Your task to perform on an android device: Go to Reddit.com Image 0: 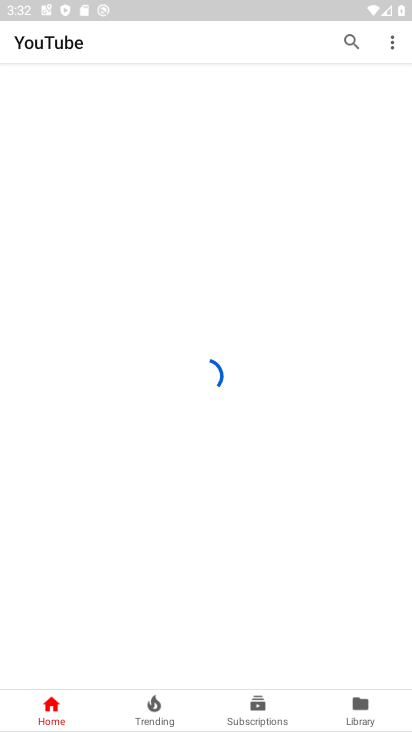
Step 0: drag from (261, 637) to (199, 21)
Your task to perform on an android device: Go to Reddit.com Image 1: 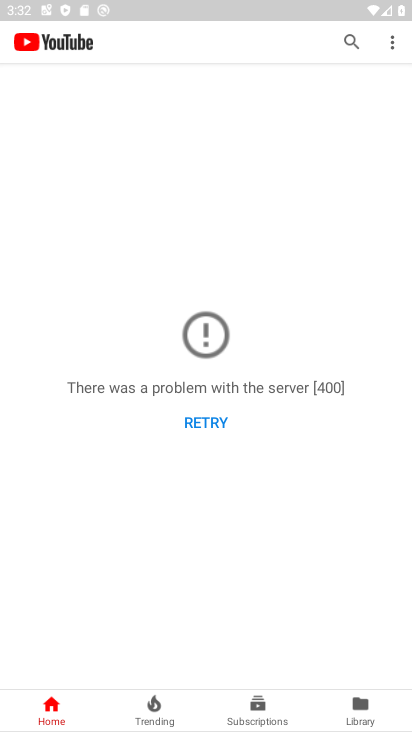
Step 1: press back button
Your task to perform on an android device: Go to Reddit.com Image 2: 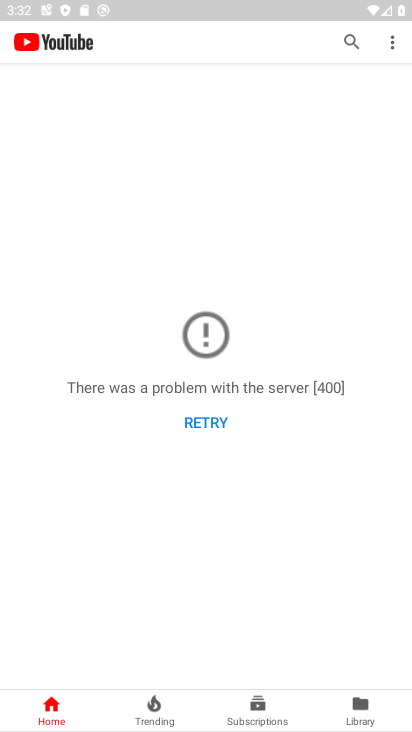
Step 2: press back button
Your task to perform on an android device: Go to Reddit.com Image 3: 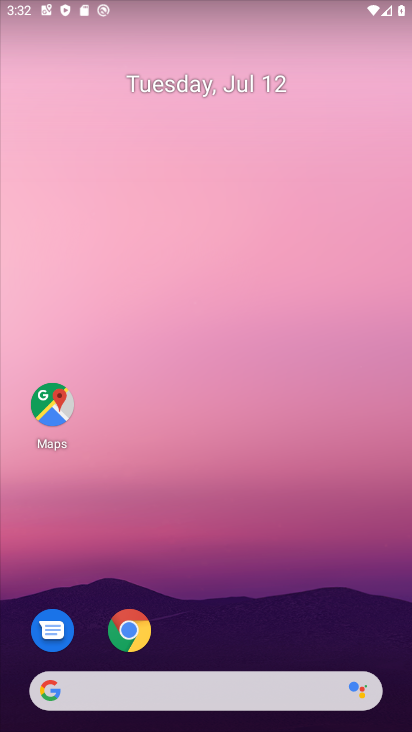
Step 3: drag from (270, 623) to (220, 183)
Your task to perform on an android device: Go to Reddit.com Image 4: 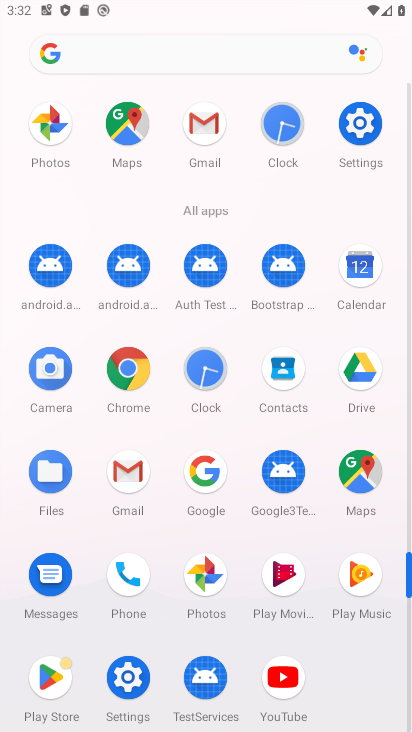
Step 4: click (128, 364)
Your task to perform on an android device: Go to Reddit.com Image 5: 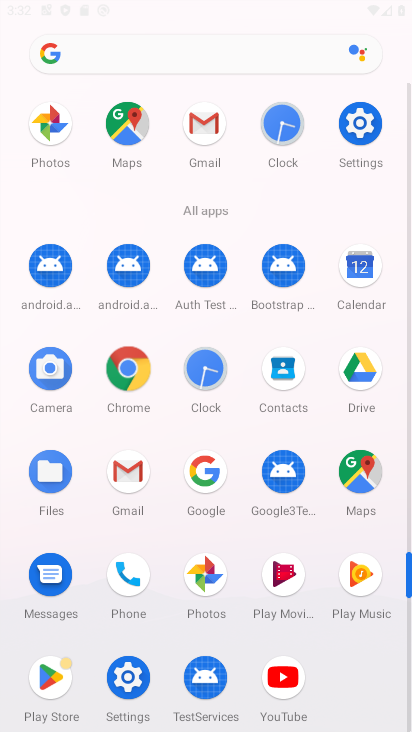
Step 5: click (128, 363)
Your task to perform on an android device: Go to Reddit.com Image 6: 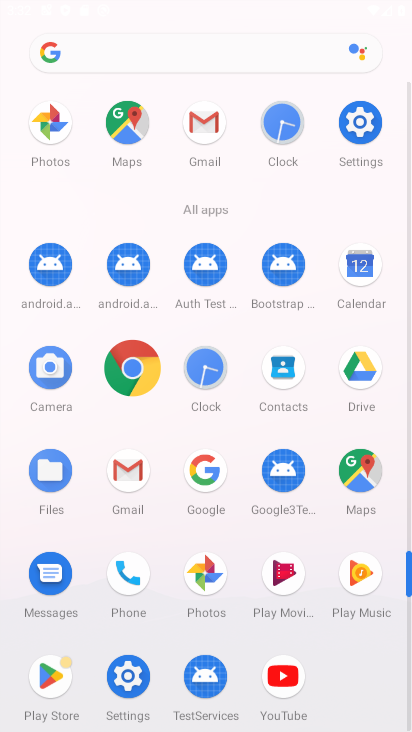
Step 6: click (128, 369)
Your task to perform on an android device: Go to Reddit.com Image 7: 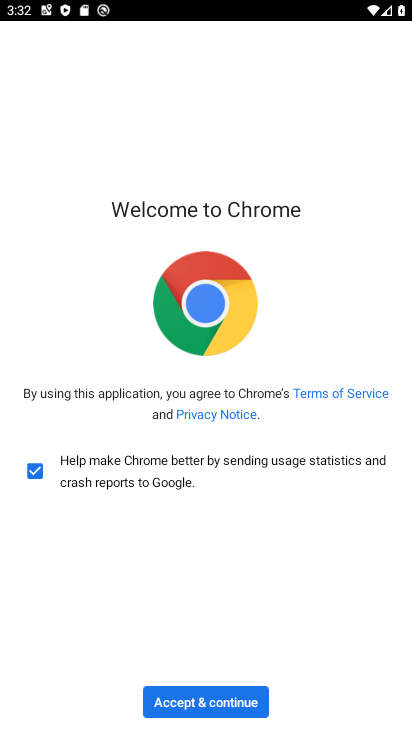
Step 7: click (215, 687)
Your task to perform on an android device: Go to Reddit.com Image 8: 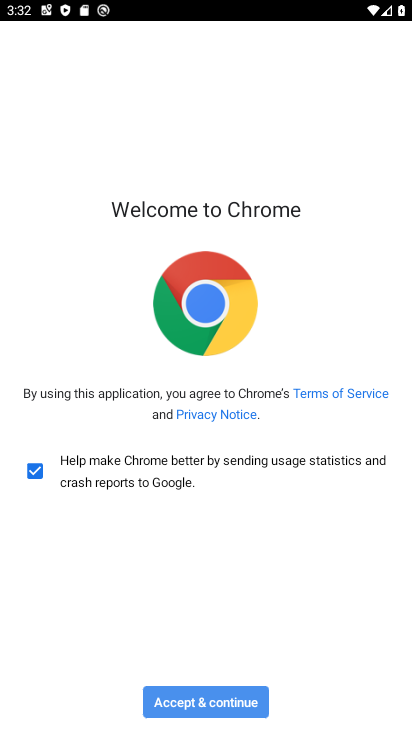
Step 8: click (213, 688)
Your task to perform on an android device: Go to Reddit.com Image 9: 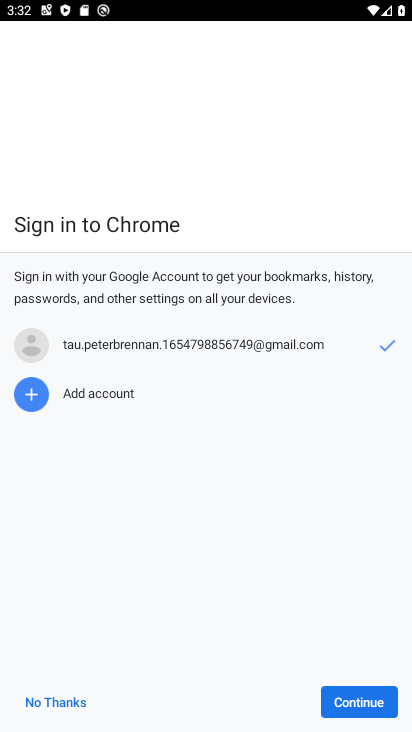
Step 9: click (213, 688)
Your task to perform on an android device: Go to Reddit.com Image 10: 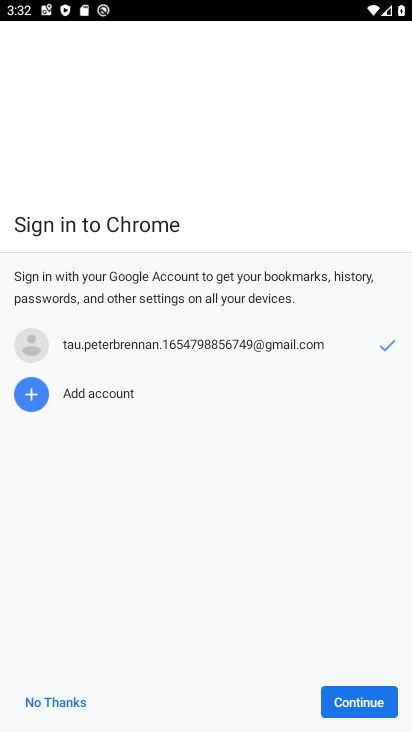
Step 10: click (217, 693)
Your task to perform on an android device: Go to Reddit.com Image 11: 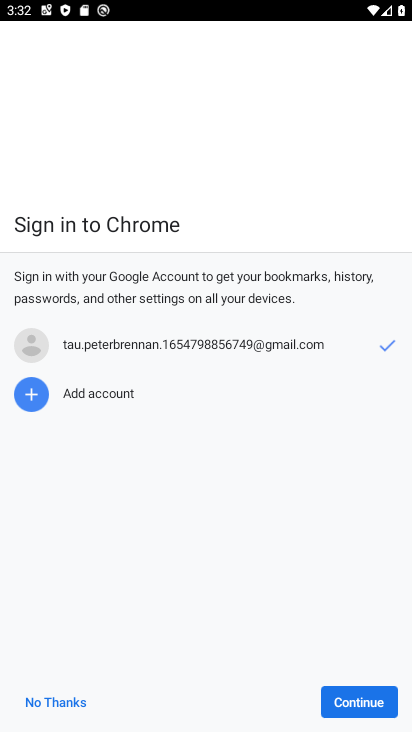
Step 11: click (365, 692)
Your task to perform on an android device: Go to Reddit.com Image 12: 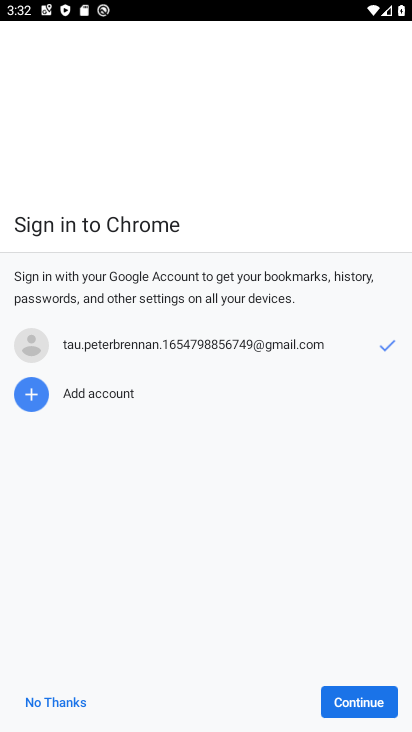
Step 12: click (367, 693)
Your task to perform on an android device: Go to Reddit.com Image 13: 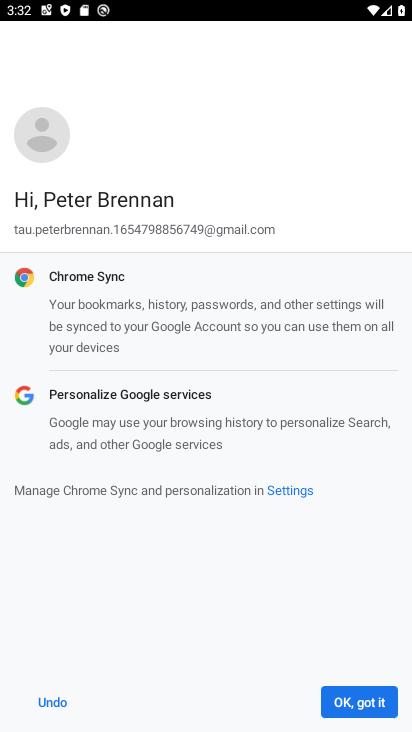
Step 13: click (368, 694)
Your task to perform on an android device: Go to Reddit.com Image 14: 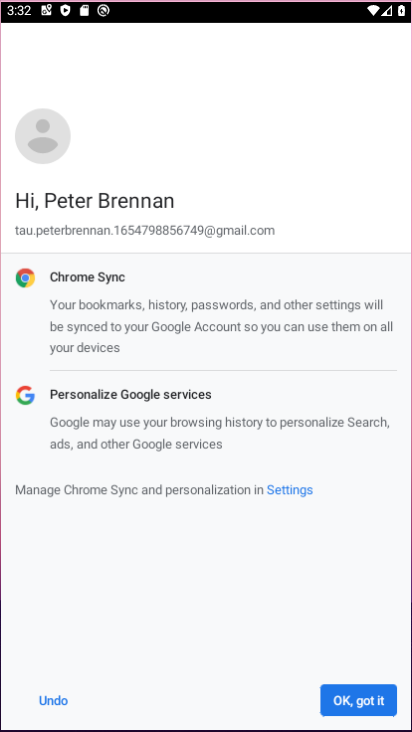
Step 14: click (368, 694)
Your task to perform on an android device: Go to Reddit.com Image 15: 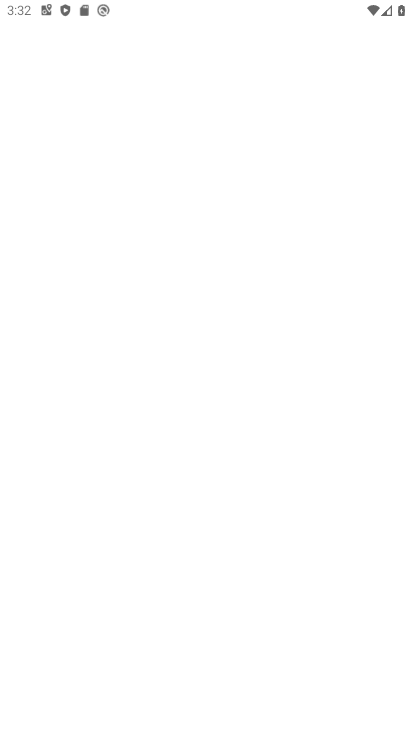
Step 15: click (369, 689)
Your task to perform on an android device: Go to Reddit.com Image 16: 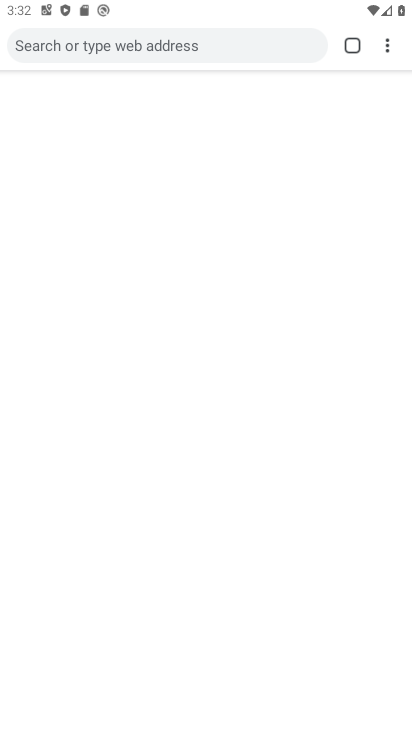
Step 16: click (132, 49)
Your task to perform on an android device: Go to Reddit.com Image 17: 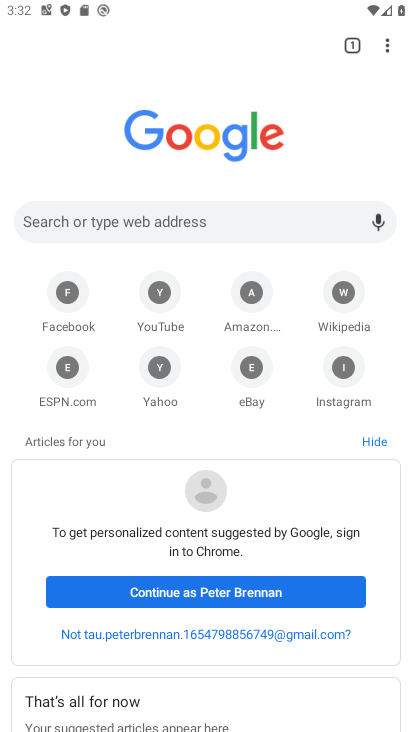
Step 17: click (132, 49)
Your task to perform on an android device: Go to Reddit.com Image 18: 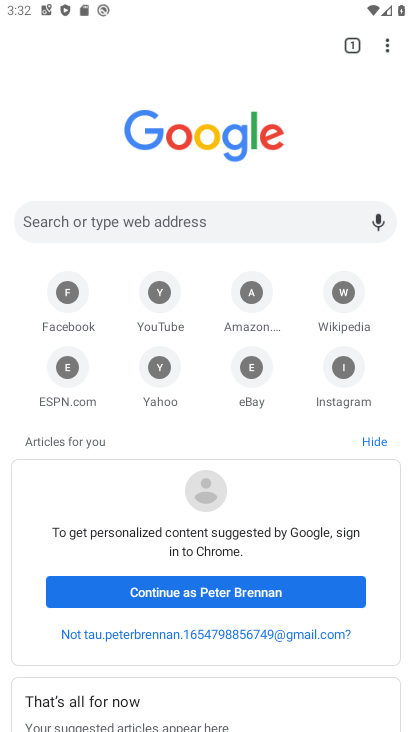
Step 18: click (132, 49)
Your task to perform on an android device: Go to Reddit.com Image 19: 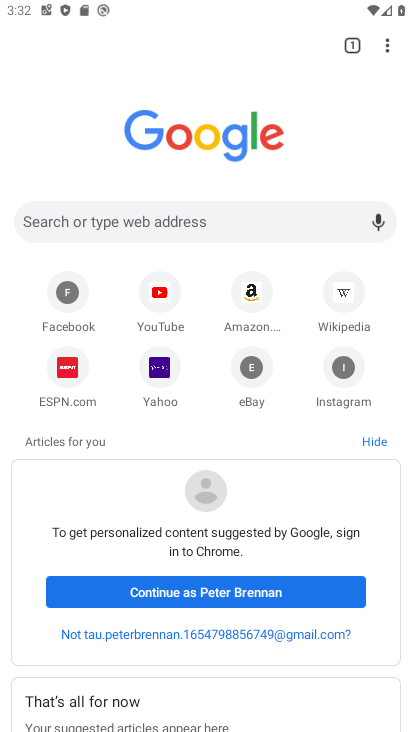
Step 19: click (132, 49)
Your task to perform on an android device: Go to Reddit.com Image 20: 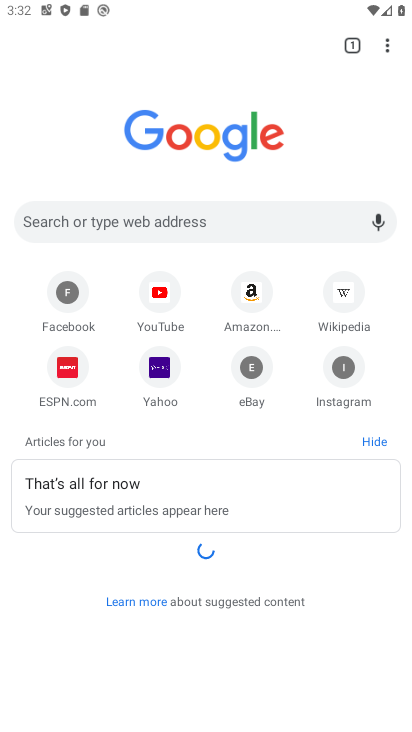
Step 20: drag from (72, 222) to (55, 193)
Your task to perform on an android device: Go to Reddit.com Image 21: 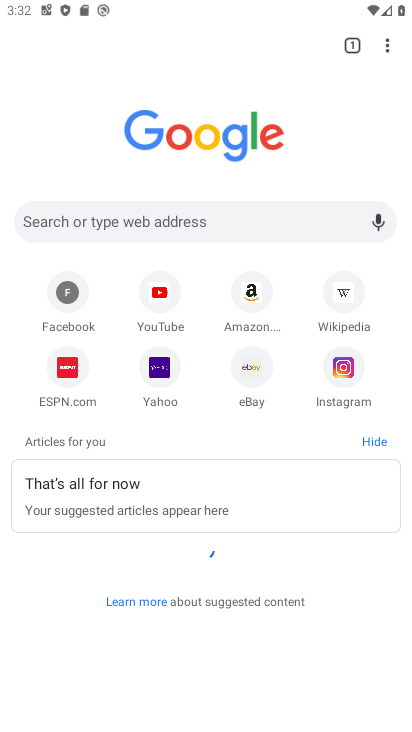
Step 21: click (55, 193)
Your task to perform on an android device: Go to Reddit.com Image 22: 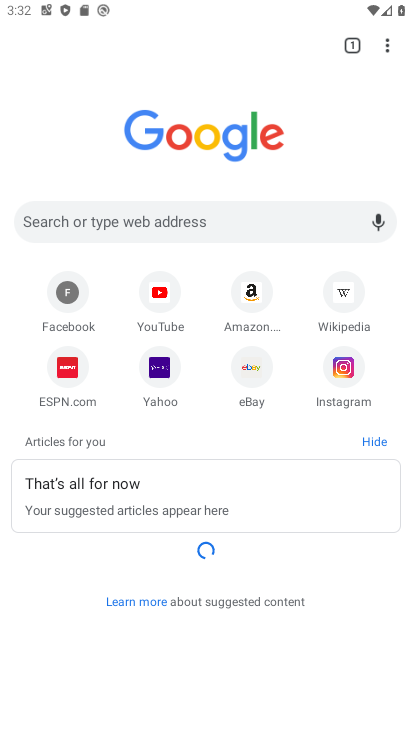
Step 22: click (57, 195)
Your task to perform on an android device: Go to Reddit.com Image 23: 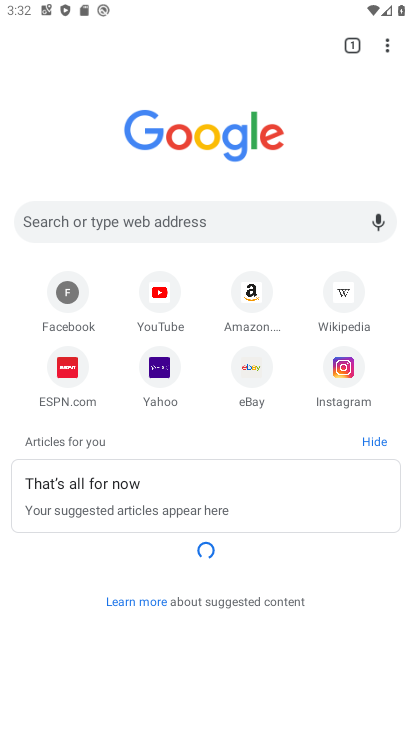
Step 23: click (57, 195)
Your task to perform on an android device: Go to Reddit.com Image 24: 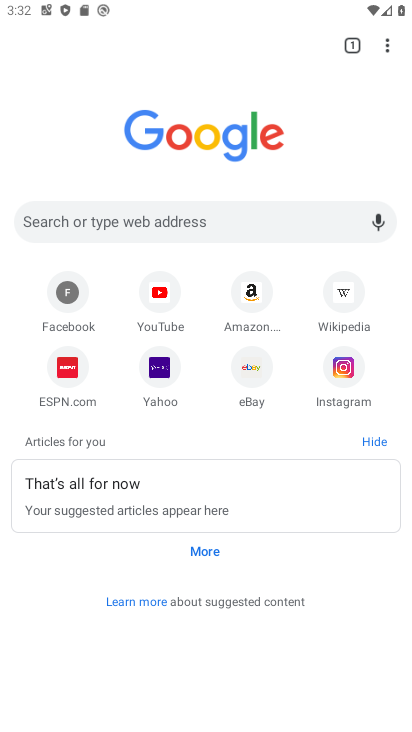
Step 24: click (63, 213)
Your task to perform on an android device: Go to Reddit.com Image 25: 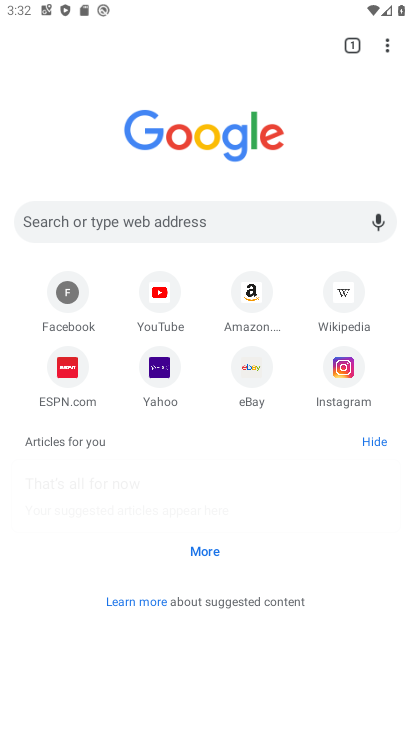
Step 25: click (63, 213)
Your task to perform on an android device: Go to Reddit.com Image 26: 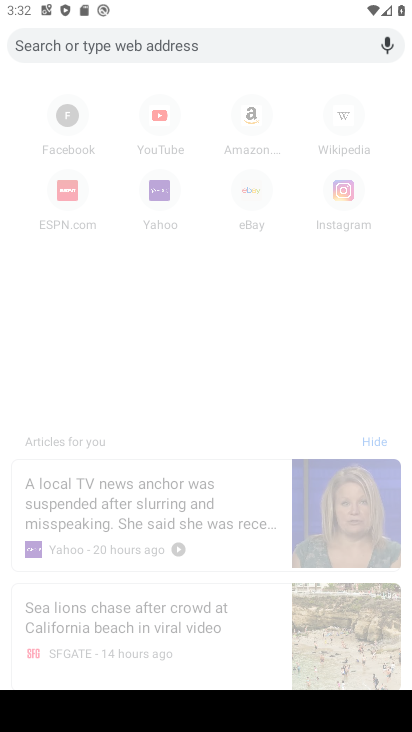
Step 26: type "reddit.com"
Your task to perform on an android device: Go to Reddit.com Image 27: 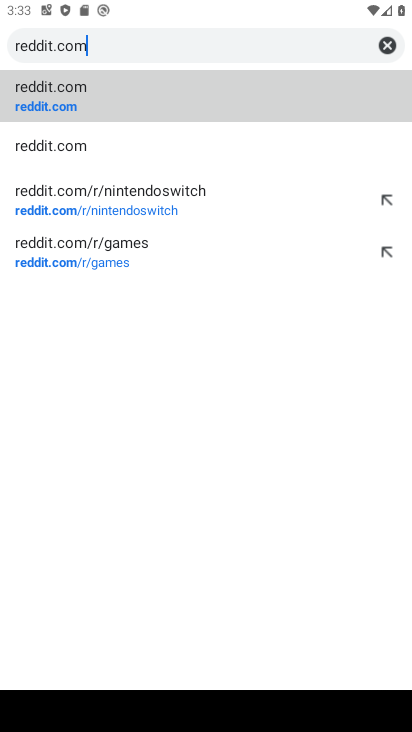
Step 27: click (47, 93)
Your task to perform on an android device: Go to Reddit.com Image 28: 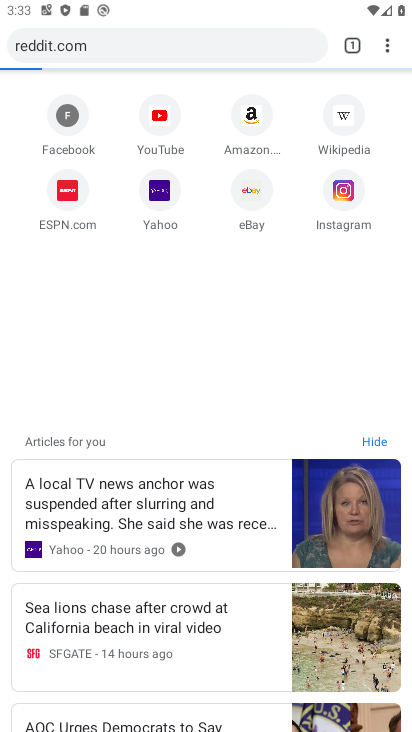
Step 28: click (10, 97)
Your task to perform on an android device: Go to Reddit.com Image 29: 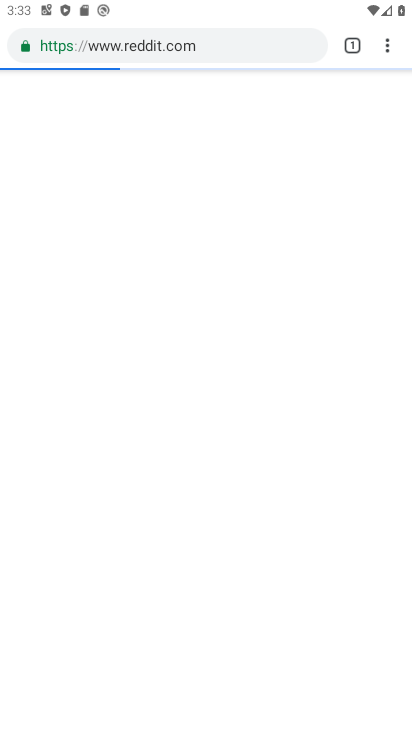
Step 29: click (35, 93)
Your task to perform on an android device: Go to Reddit.com Image 30: 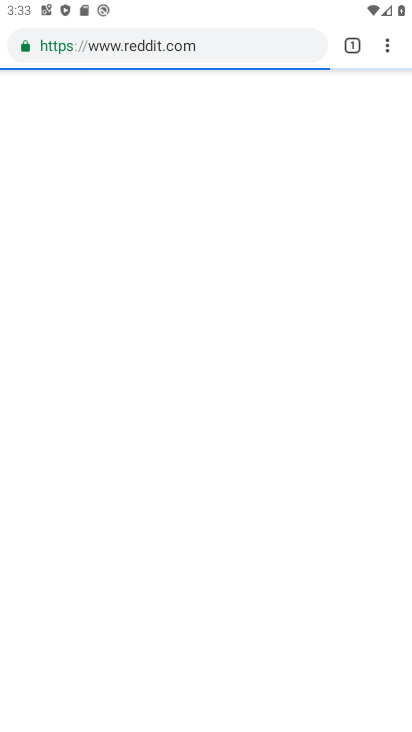
Step 30: task complete